Your task to perform on an android device: Open the settings Image 0: 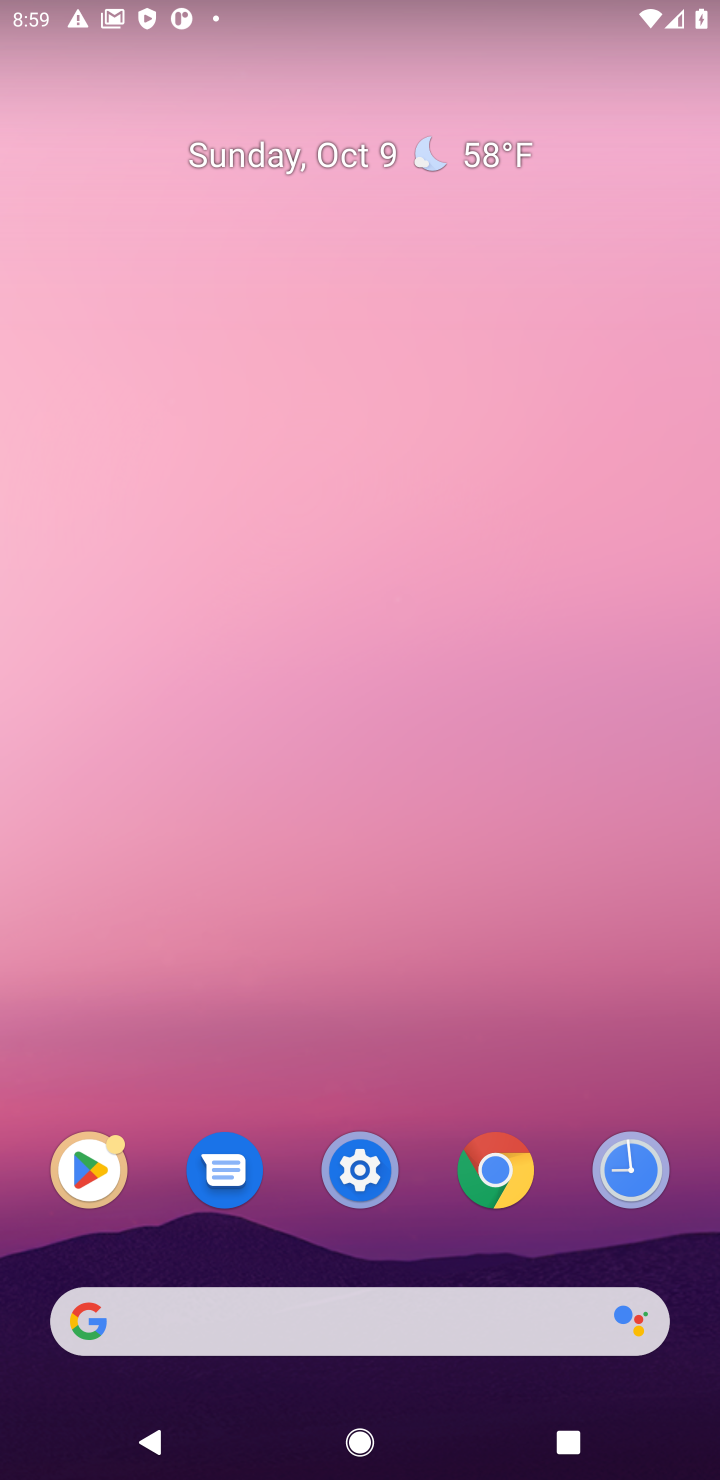
Step 0: drag from (260, 1229) to (272, 161)
Your task to perform on an android device: Open the settings Image 1: 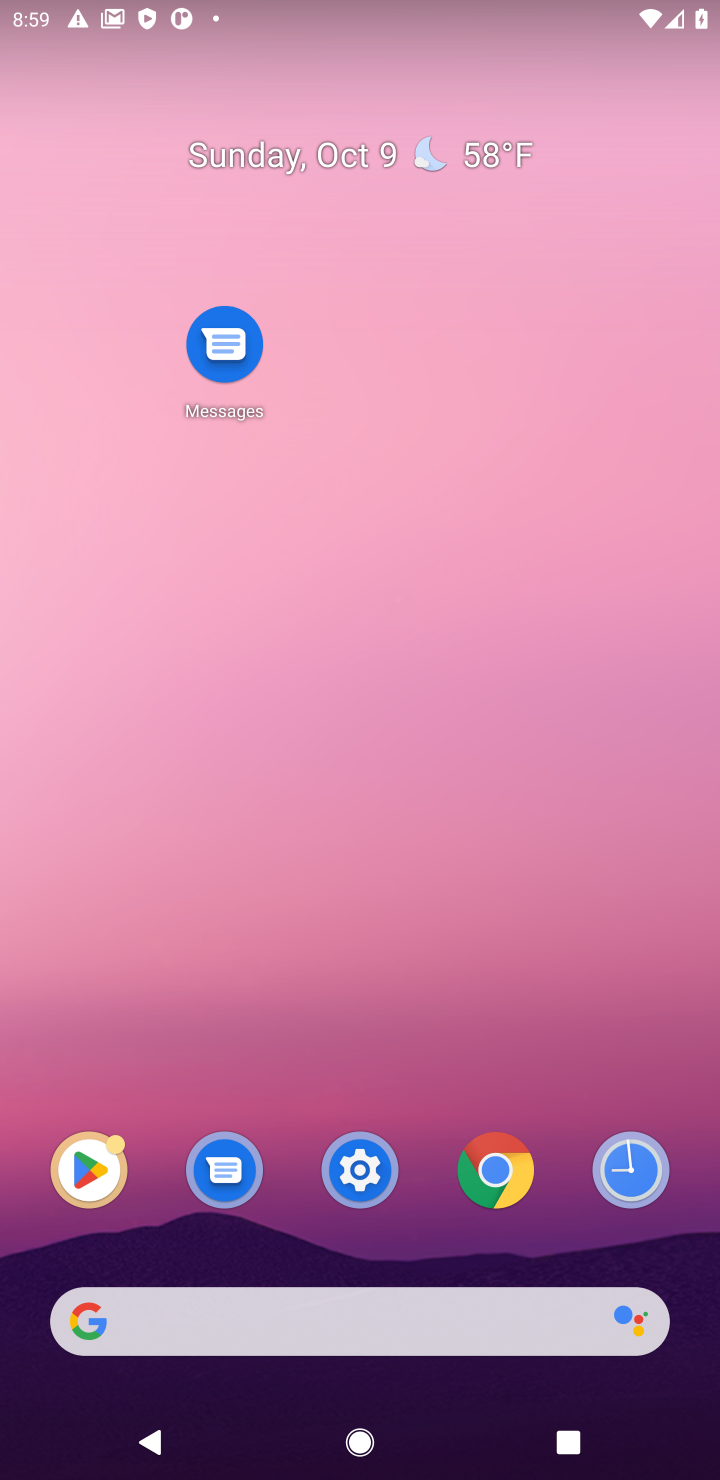
Step 1: click (329, 1181)
Your task to perform on an android device: Open the settings Image 2: 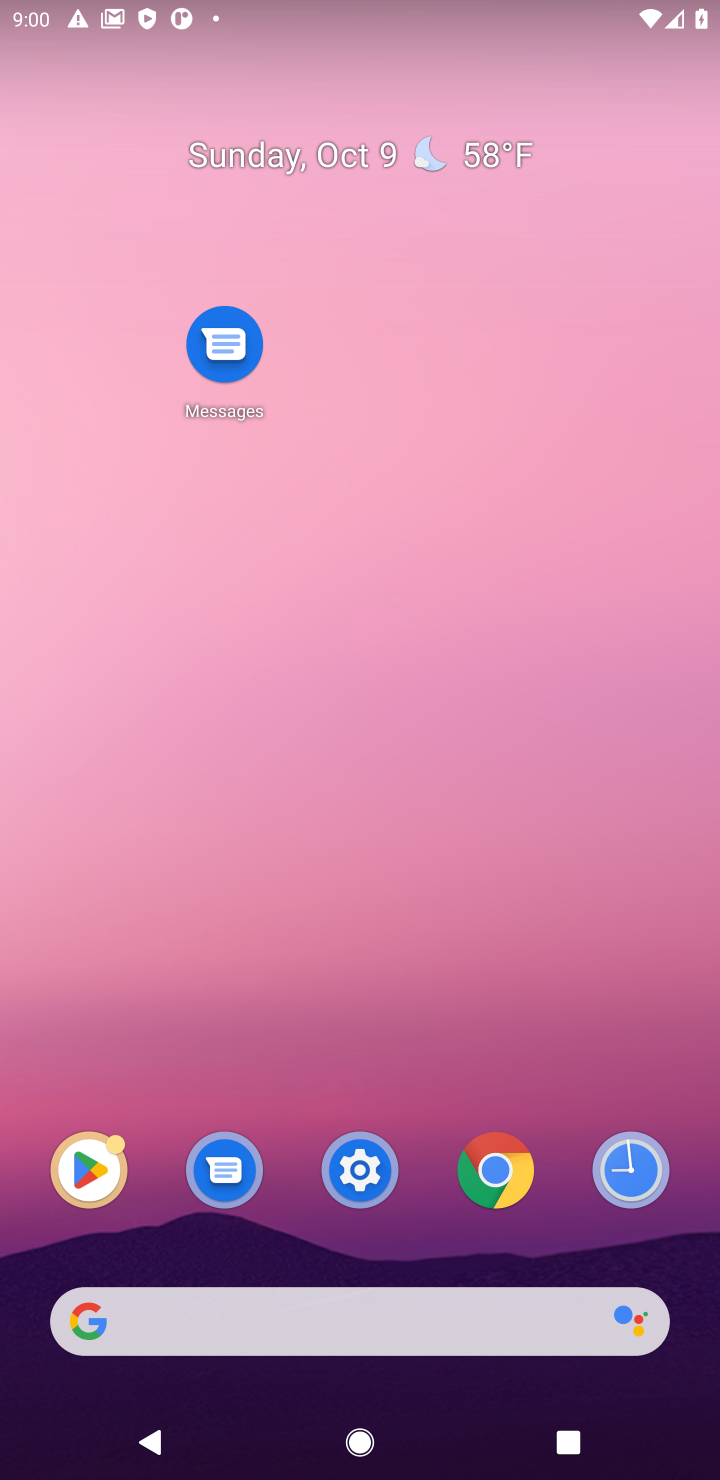
Step 2: click (367, 1181)
Your task to perform on an android device: Open the settings Image 3: 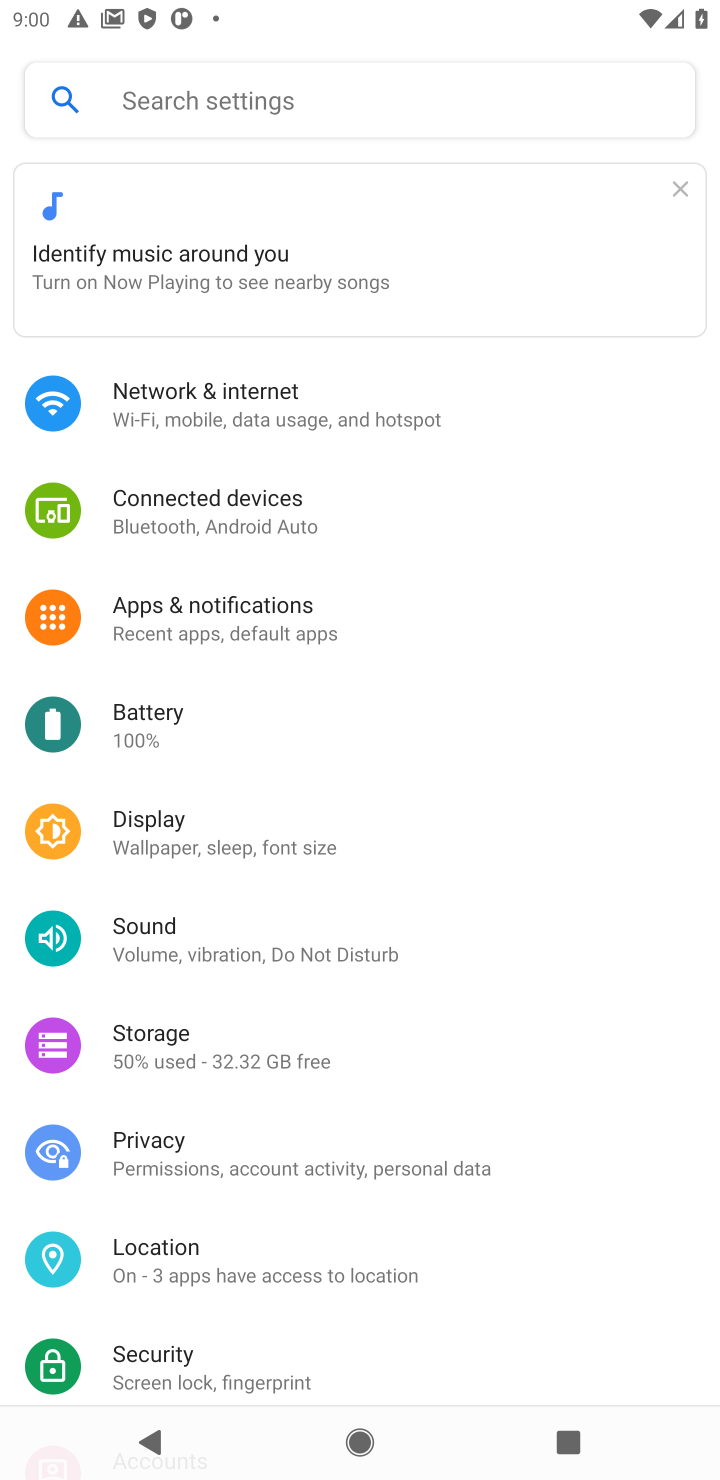
Step 3: task complete